Your task to perform on an android device: delete location history Image 0: 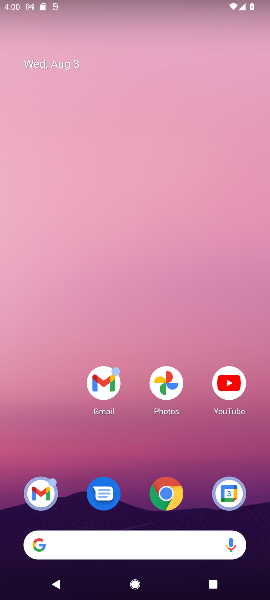
Step 0: drag from (65, 439) to (84, 164)
Your task to perform on an android device: delete location history Image 1: 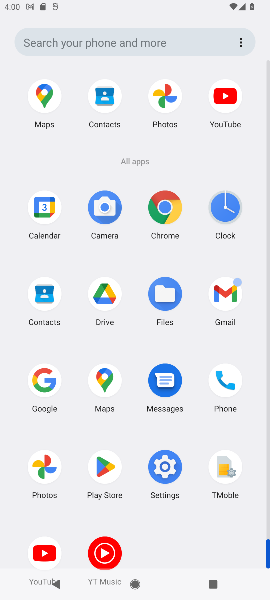
Step 1: click (107, 380)
Your task to perform on an android device: delete location history Image 2: 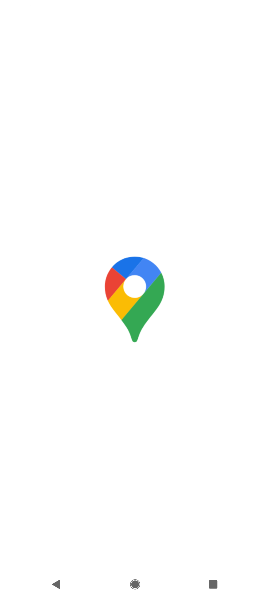
Step 2: task complete